Your task to perform on an android device: check data usage Image 0: 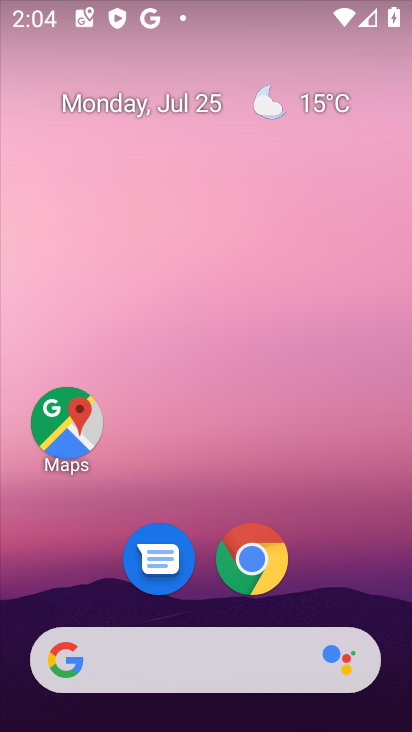
Step 0: drag from (101, 525) to (208, 2)
Your task to perform on an android device: check data usage Image 1: 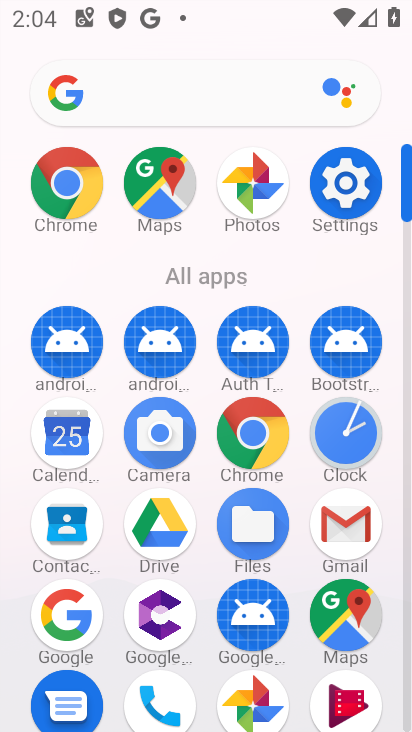
Step 1: click (338, 186)
Your task to perform on an android device: check data usage Image 2: 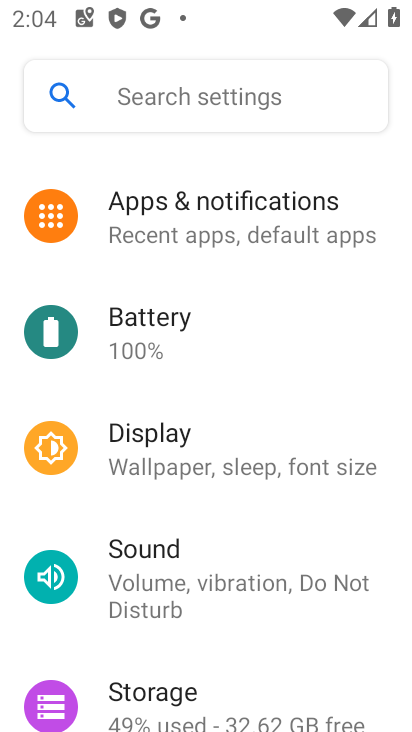
Step 2: drag from (193, 234) to (181, 730)
Your task to perform on an android device: check data usage Image 3: 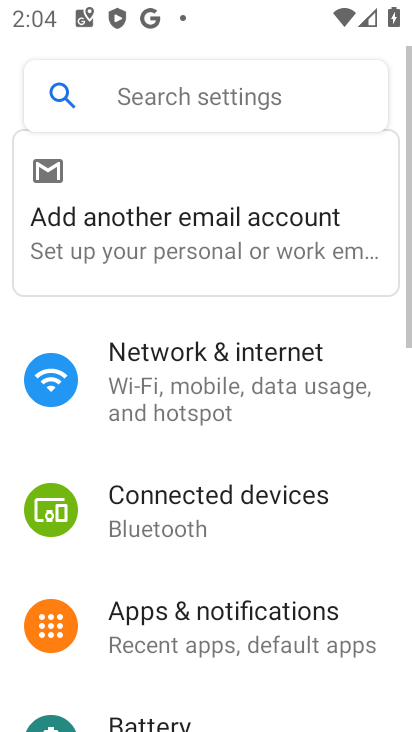
Step 3: click (167, 387)
Your task to perform on an android device: check data usage Image 4: 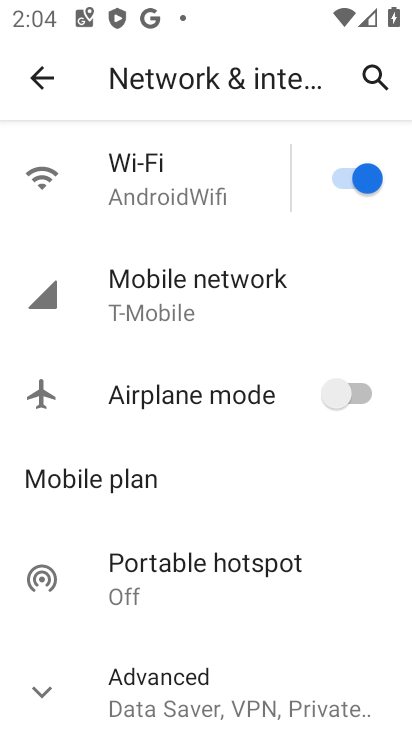
Step 4: click (158, 297)
Your task to perform on an android device: check data usage Image 5: 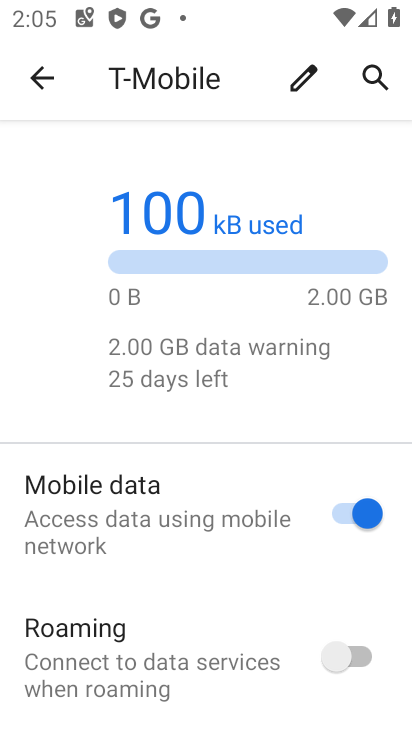
Step 5: drag from (164, 659) to (203, 202)
Your task to perform on an android device: check data usage Image 6: 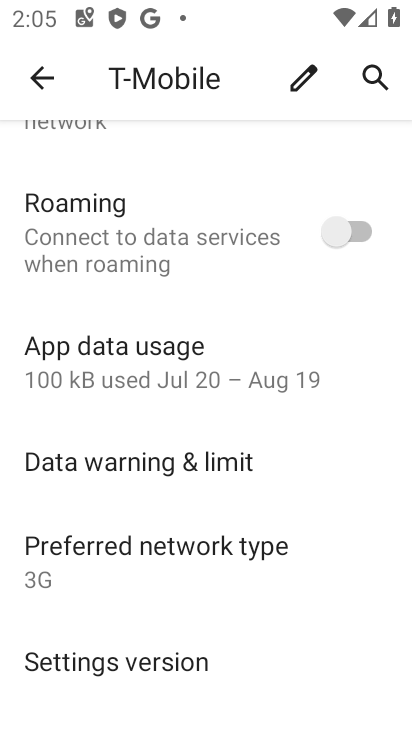
Step 6: click (76, 348)
Your task to perform on an android device: check data usage Image 7: 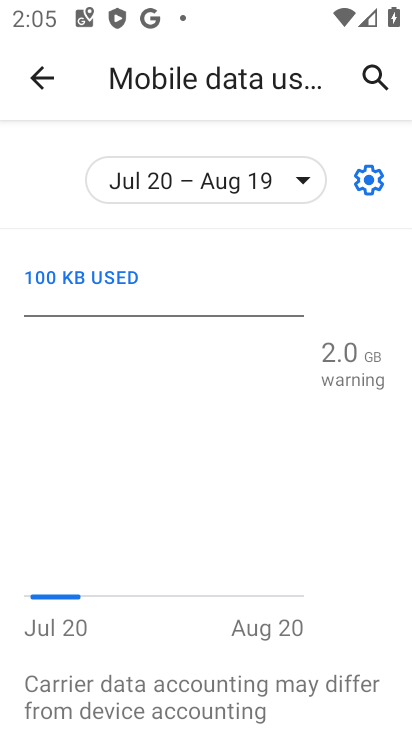
Step 7: task complete